Your task to perform on an android device: Go to settings Image 0: 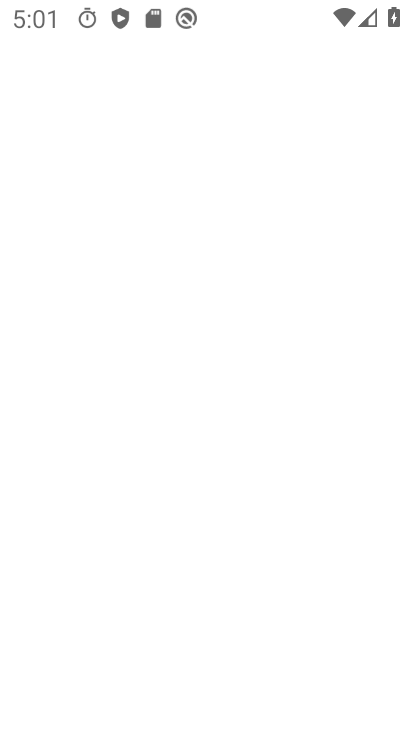
Step 0: drag from (324, 568) to (242, 151)
Your task to perform on an android device: Go to settings Image 1: 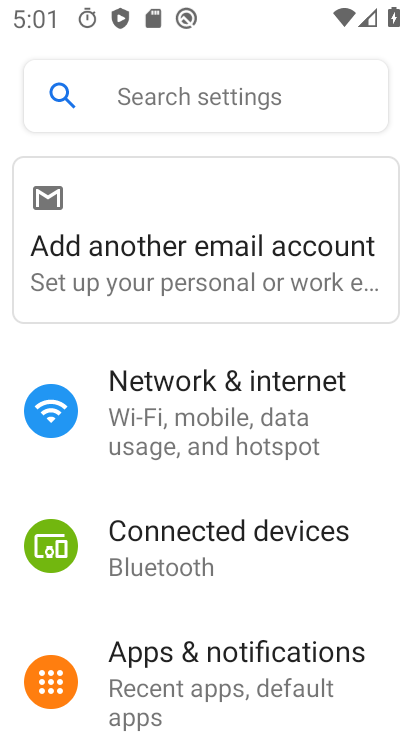
Step 1: task complete